Your task to perform on an android device: Open notification settings Image 0: 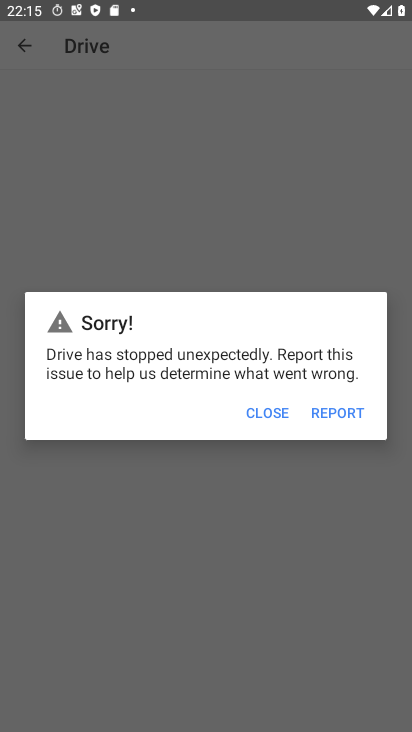
Step 0: press back button
Your task to perform on an android device: Open notification settings Image 1: 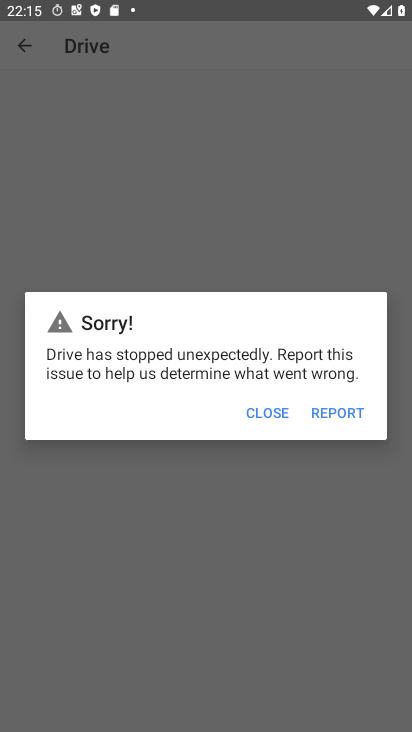
Step 1: click (284, 409)
Your task to perform on an android device: Open notification settings Image 2: 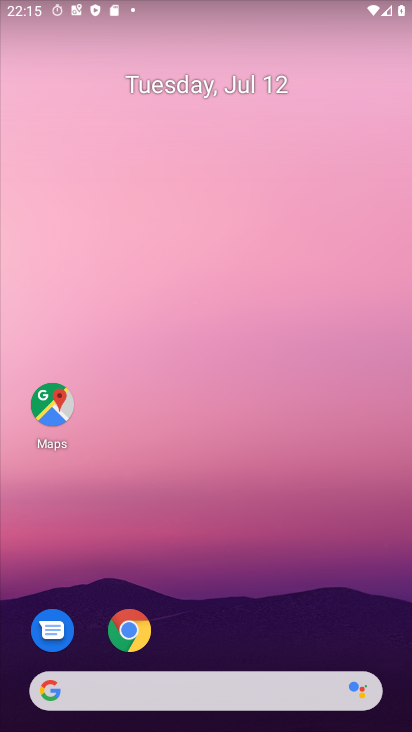
Step 2: drag from (250, 589) to (227, 42)
Your task to perform on an android device: Open notification settings Image 3: 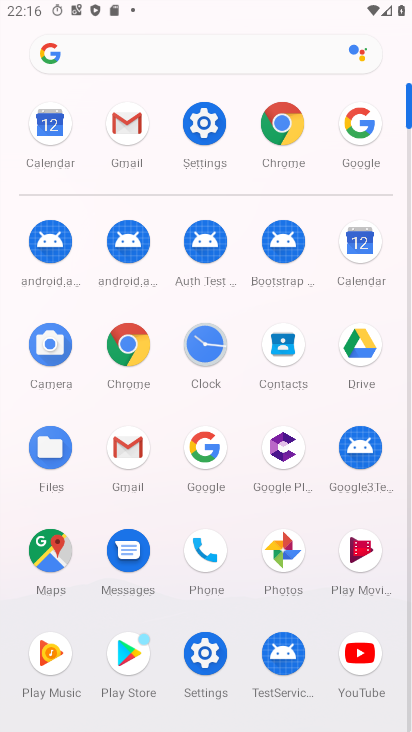
Step 3: click (199, 115)
Your task to perform on an android device: Open notification settings Image 4: 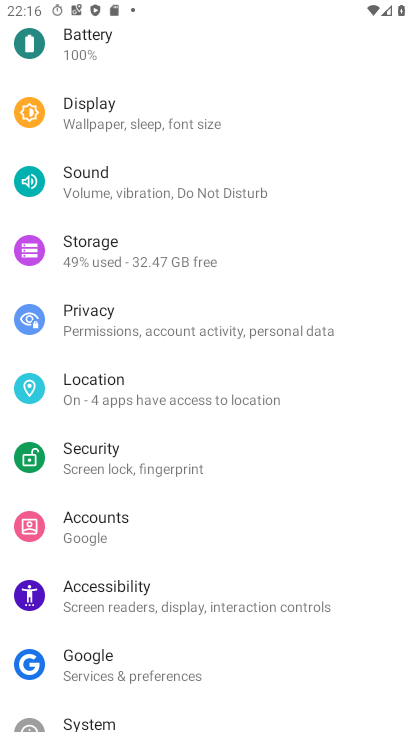
Step 4: drag from (197, 117) to (123, 579)
Your task to perform on an android device: Open notification settings Image 5: 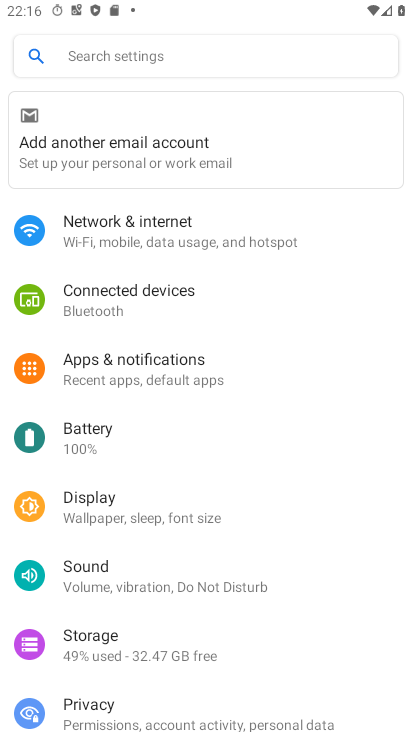
Step 5: click (175, 359)
Your task to perform on an android device: Open notification settings Image 6: 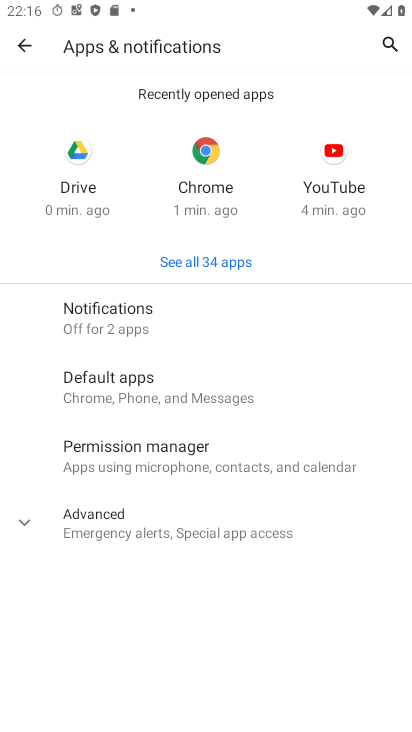
Step 6: task complete